Your task to perform on an android device: move a message to another label in the gmail app Image 0: 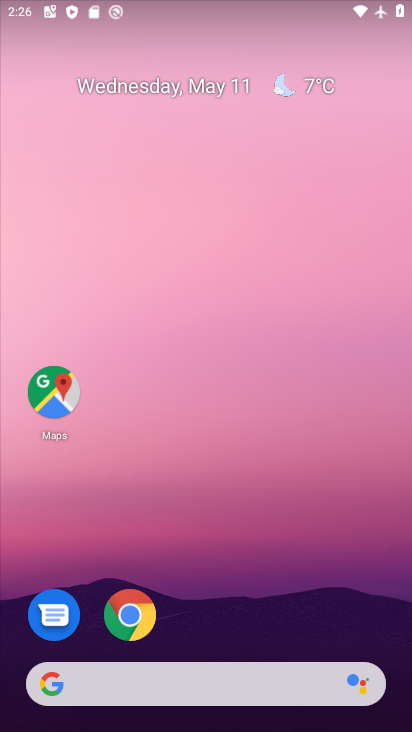
Step 0: drag from (291, 577) to (258, 111)
Your task to perform on an android device: move a message to another label in the gmail app Image 1: 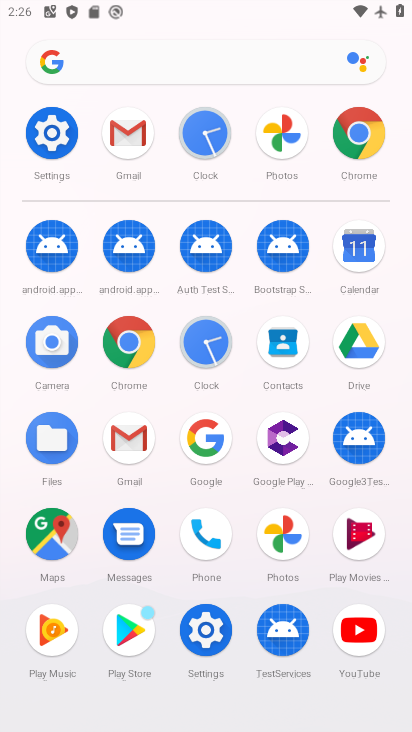
Step 1: click (126, 135)
Your task to perform on an android device: move a message to another label in the gmail app Image 2: 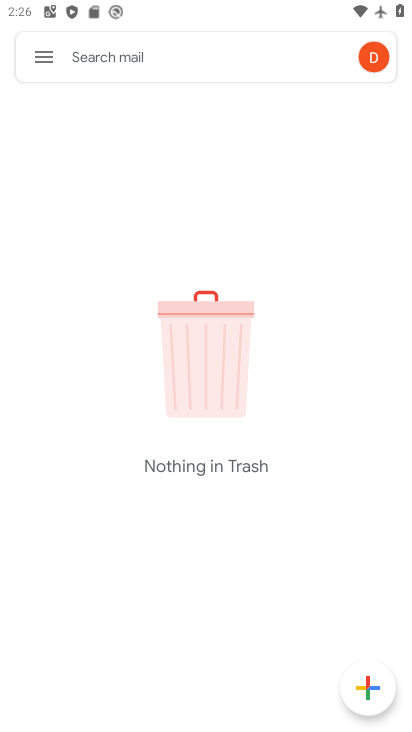
Step 2: click (43, 57)
Your task to perform on an android device: move a message to another label in the gmail app Image 3: 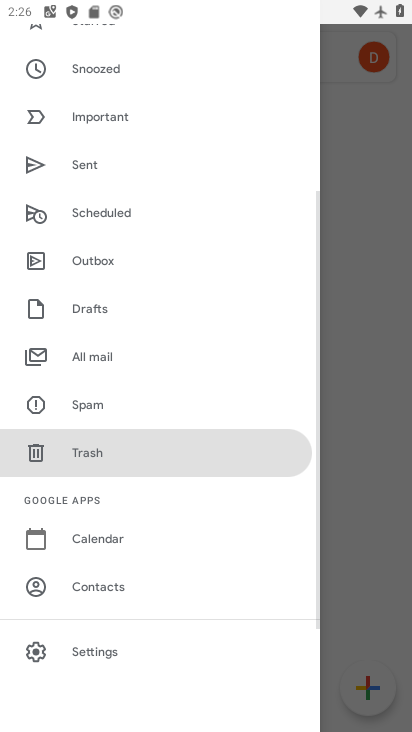
Step 3: click (99, 361)
Your task to perform on an android device: move a message to another label in the gmail app Image 4: 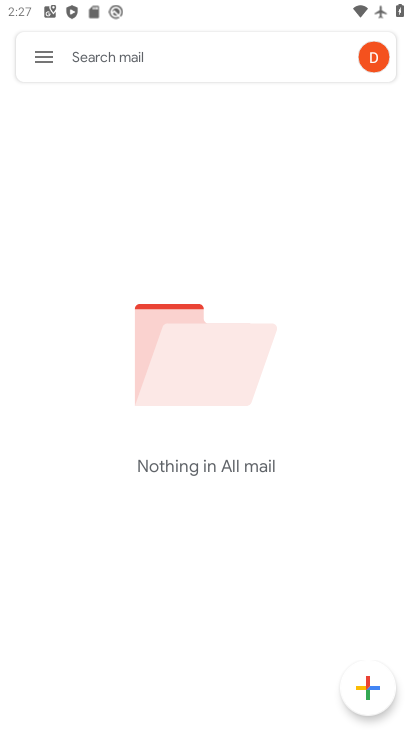
Step 4: task complete